Your task to perform on an android device: manage bookmarks in the chrome app Image 0: 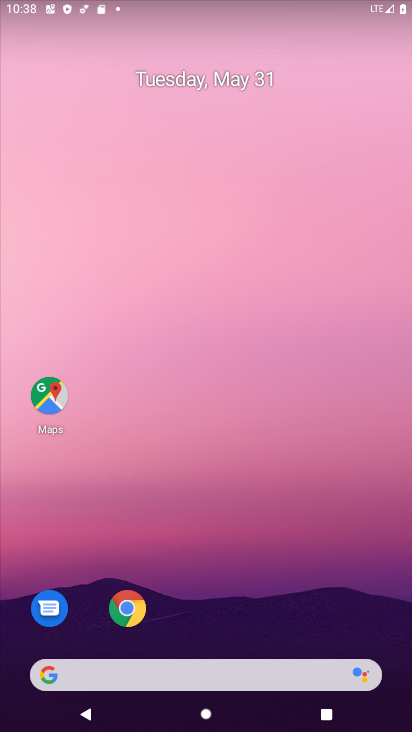
Step 0: click (119, 619)
Your task to perform on an android device: manage bookmarks in the chrome app Image 1: 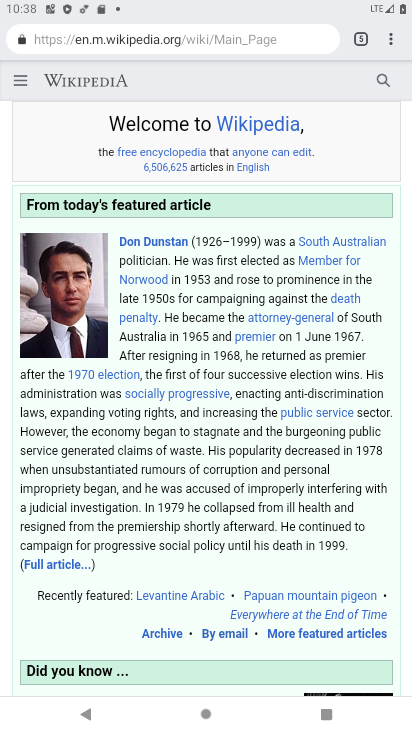
Step 1: drag from (389, 41) to (276, 201)
Your task to perform on an android device: manage bookmarks in the chrome app Image 2: 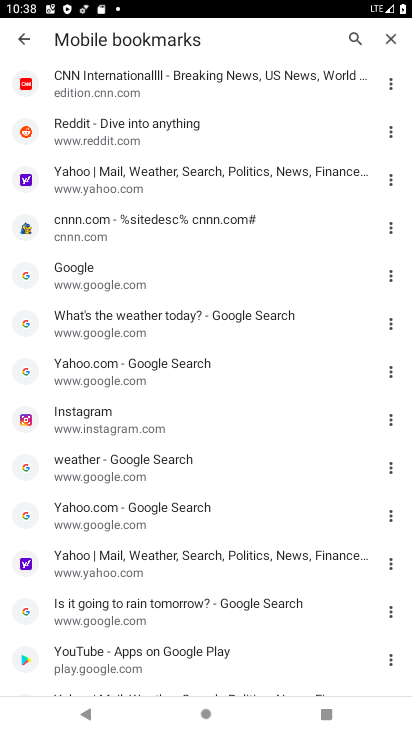
Step 2: click (390, 86)
Your task to perform on an android device: manage bookmarks in the chrome app Image 3: 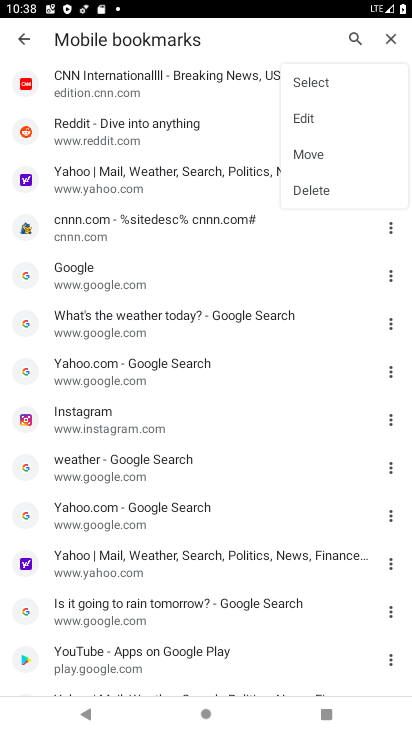
Step 3: click (293, 119)
Your task to perform on an android device: manage bookmarks in the chrome app Image 4: 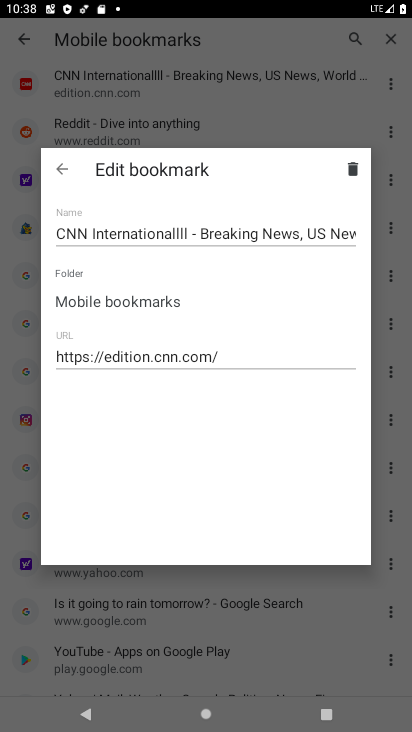
Step 4: task complete